Your task to perform on an android device: Show me recent news Image 0: 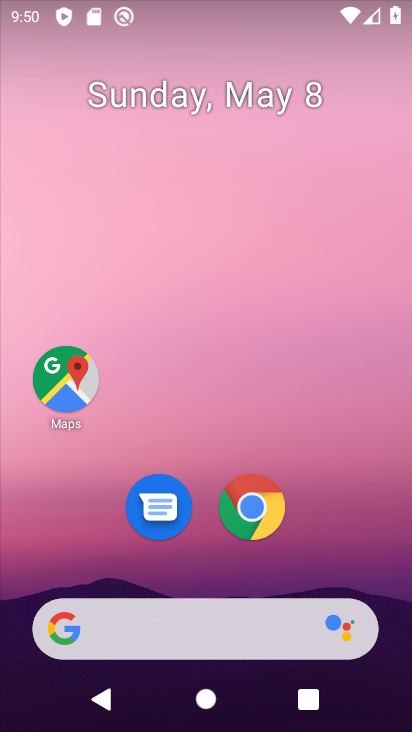
Step 0: click (189, 44)
Your task to perform on an android device: Show me recent news Image 1: 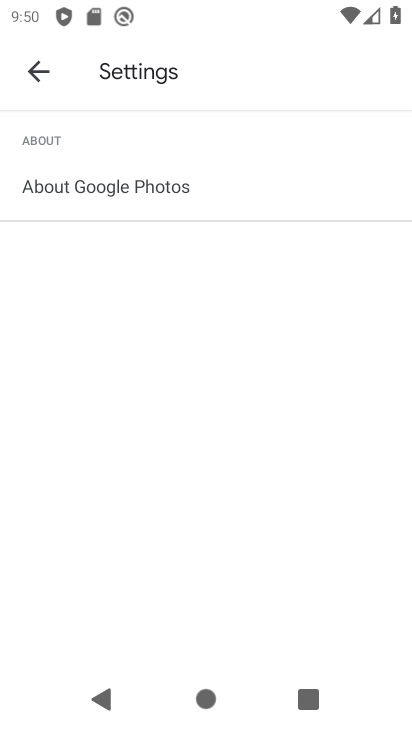
Step 1: task complete